Your task to perform on an android device: Open calendar and show me the second week of next month Image 0: 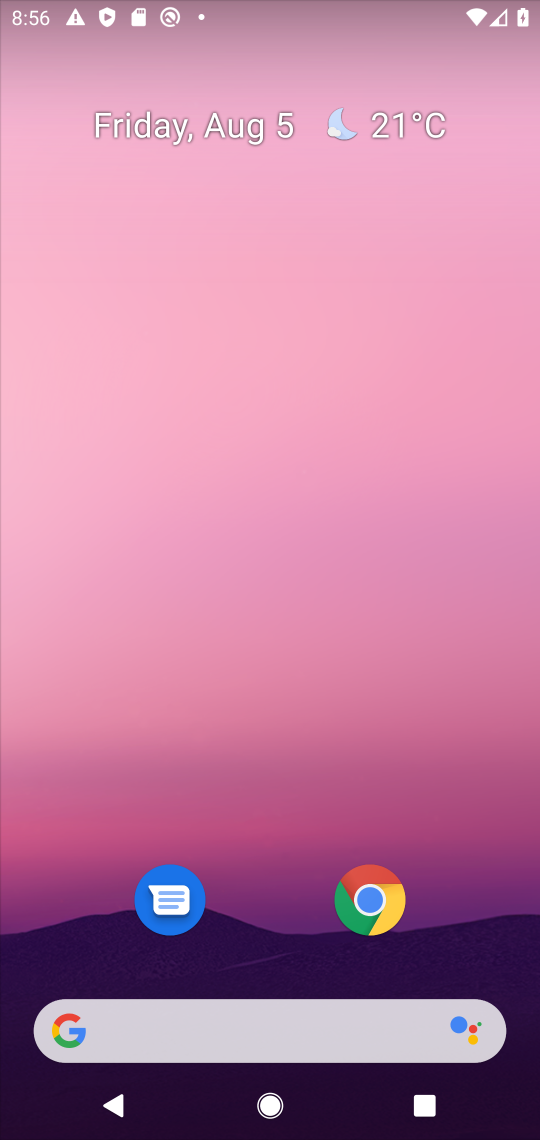
Step 0: press home button
Your task to perform on an android device: Open calendar and show me the second week of next month Image 1: 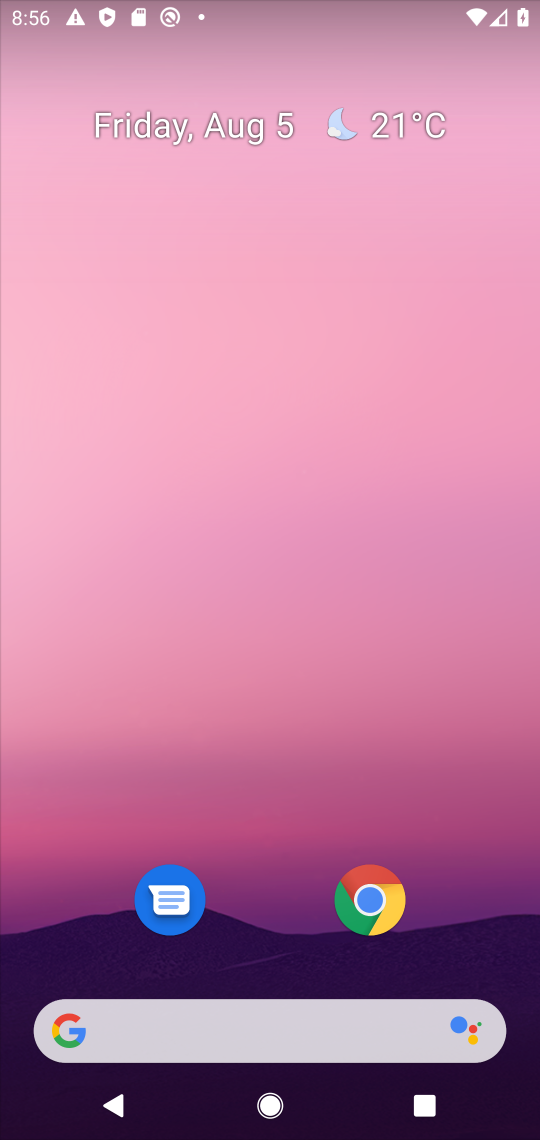
Step 1: drag from (300, 936) to (346, 1)
Your task to perform on an android device: Open calendar and show me the second week of next month Image 2: 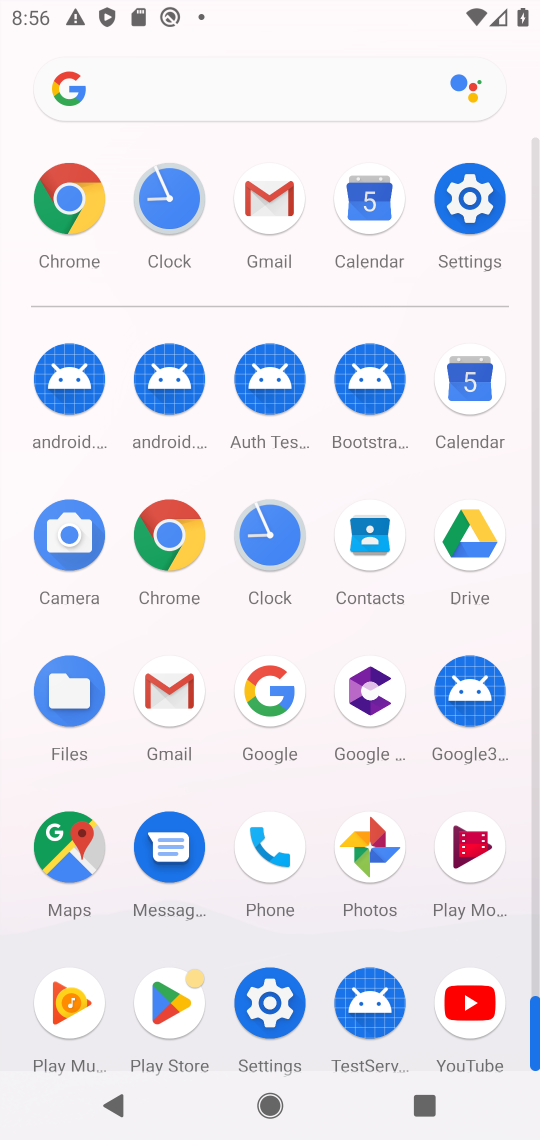
Step 2: drag from (490, 4) to (0, 202)
Your task to perform on an android device: Open calendar and show me the second week of next month Image 3: 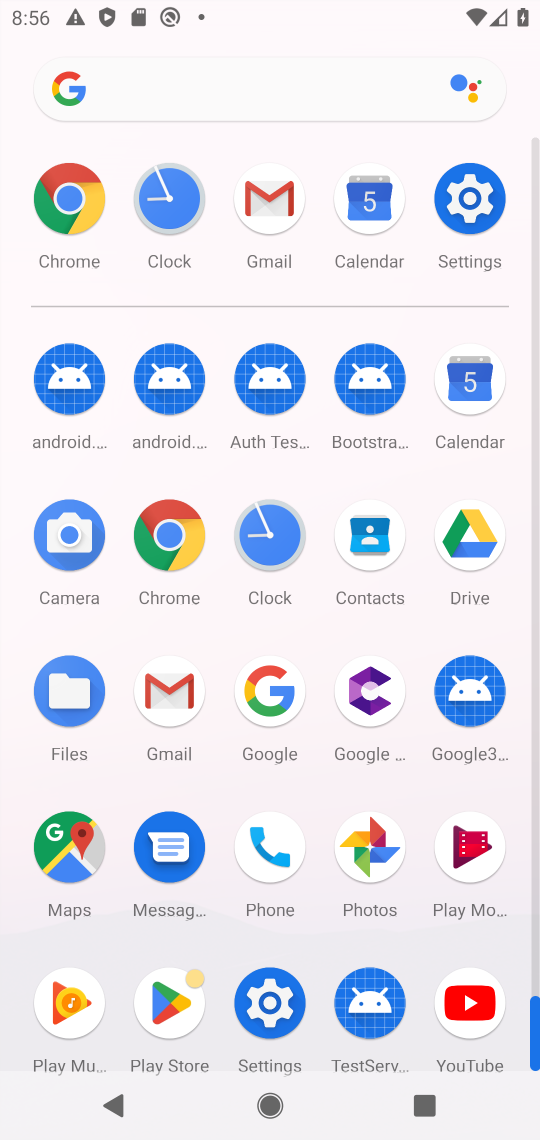
Step 3: drag from (111, 9) to (0, 915)
Your task to perform on an android device: Open calendar and show me the second week of next month Image 4: 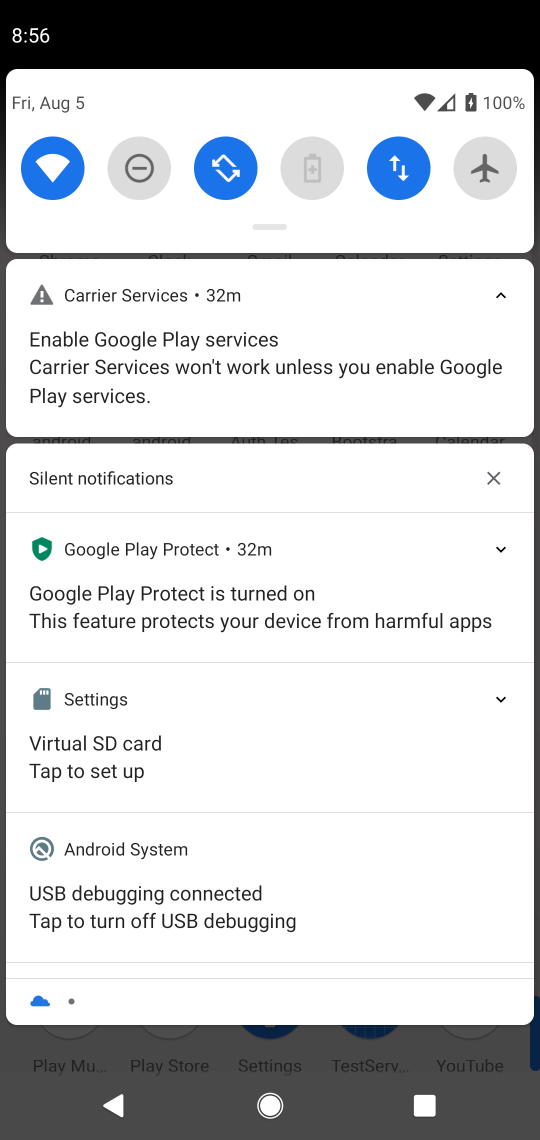
Step 4: drag from (293, 1073) to (349, 7)
Your task to perform on an android device: Open calendar and show me the second week of next month Image 5: 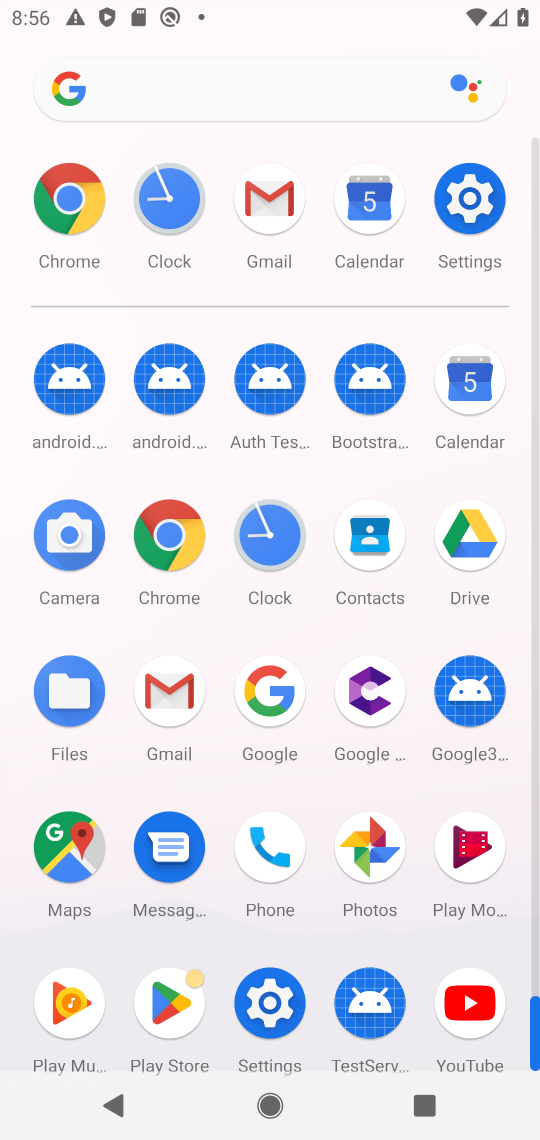
Step 5: click (482, 388)
Your task to perform on an android device: Open calendar and show me the second week of next month Image 6: 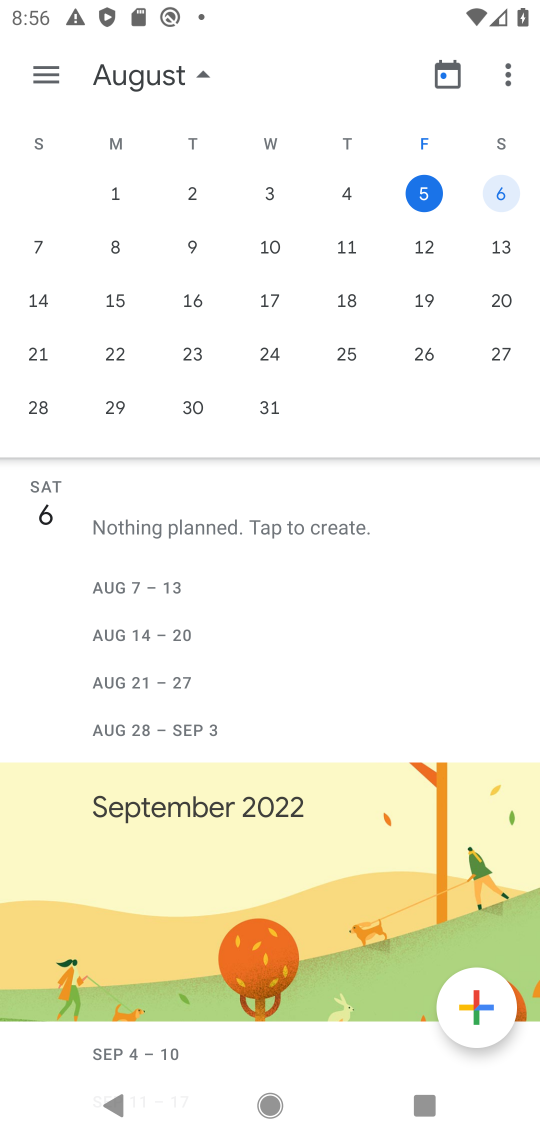
Step 6: drag from (532, 249) to (0, 491)
Your task to perform on an android device: Open calendar and show me the second week of next month Image 7: 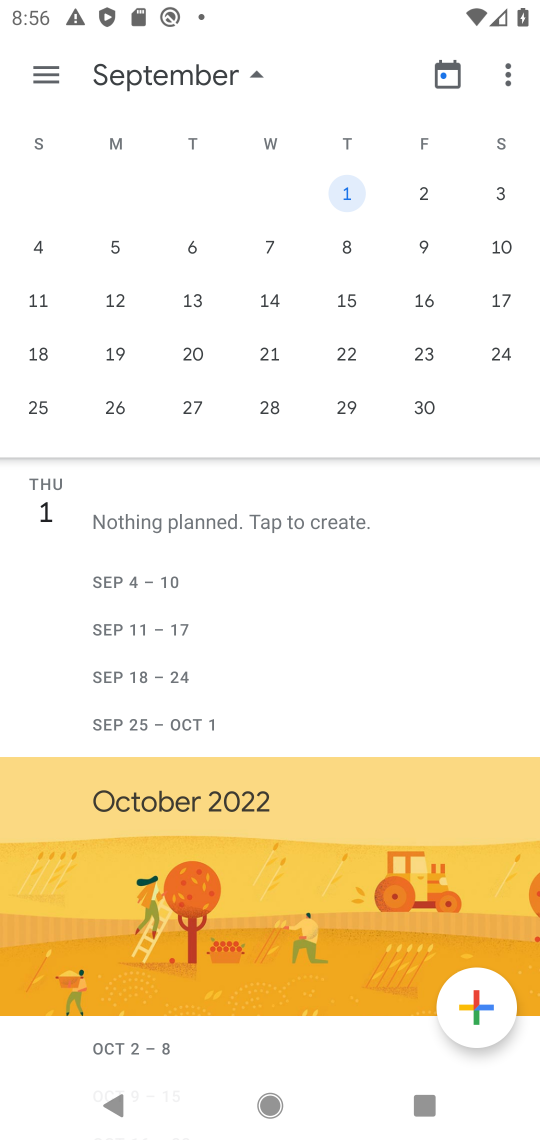
Step 7: click (344, 248)
Your task to perform on an android device: Open calendar and show me the second week of next month Image 8: 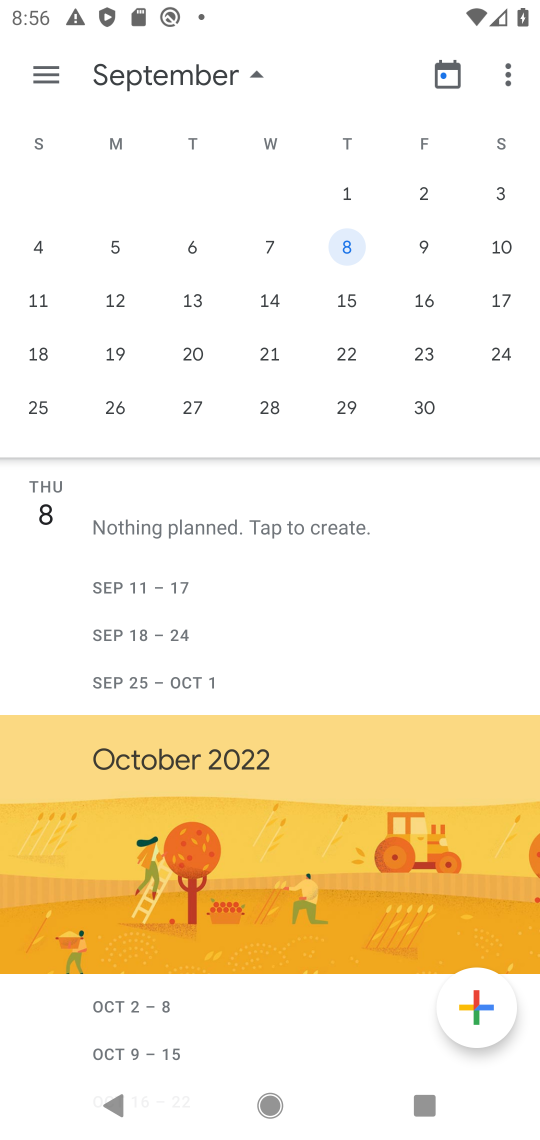
Step 8: task complete